Your task to perform on an android device: What's the latest technology news? Image 0: 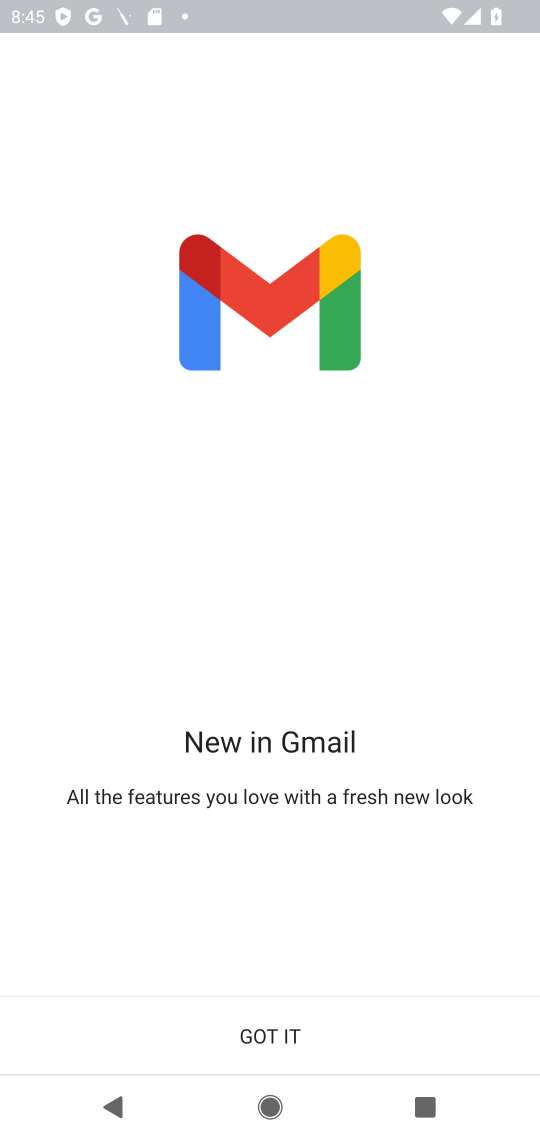
Step 0: press home button
Your task to perform on an android device: What's the latest technology news? Image 1: 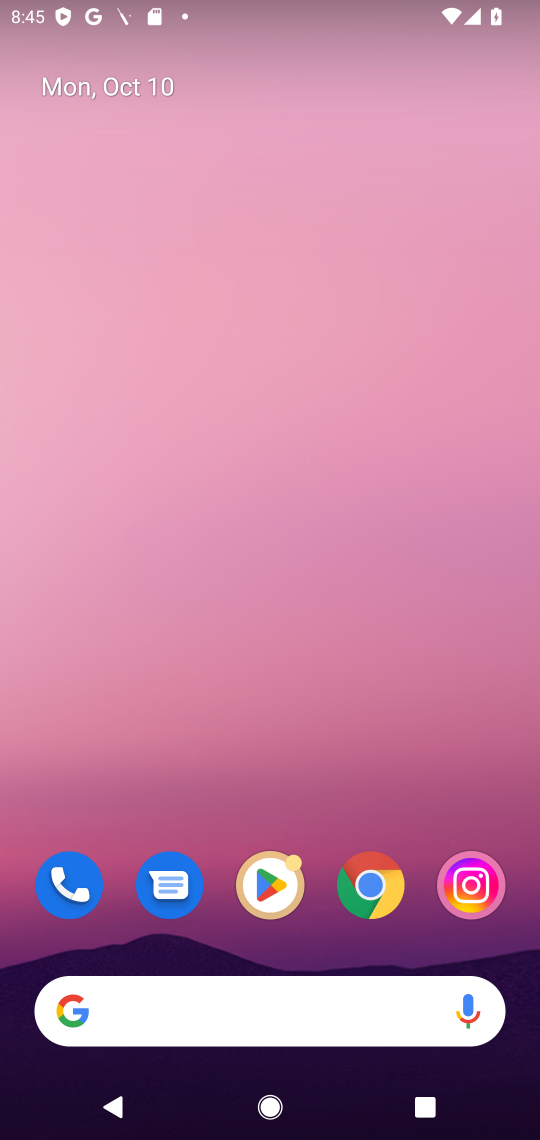
Step 1: drag from (276, 847) to (243, 34)
Your task to perform on an android device: What's the latest technology news? Image 2: 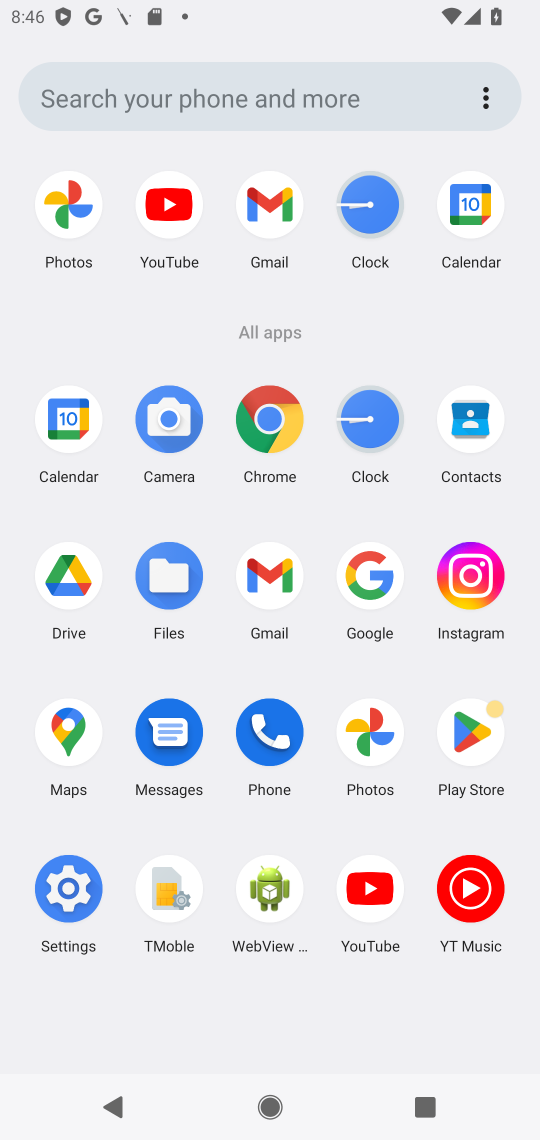
Step 2: click (356, 555)
Your task to perform on an android device: What's the latest technology news? Image 3: 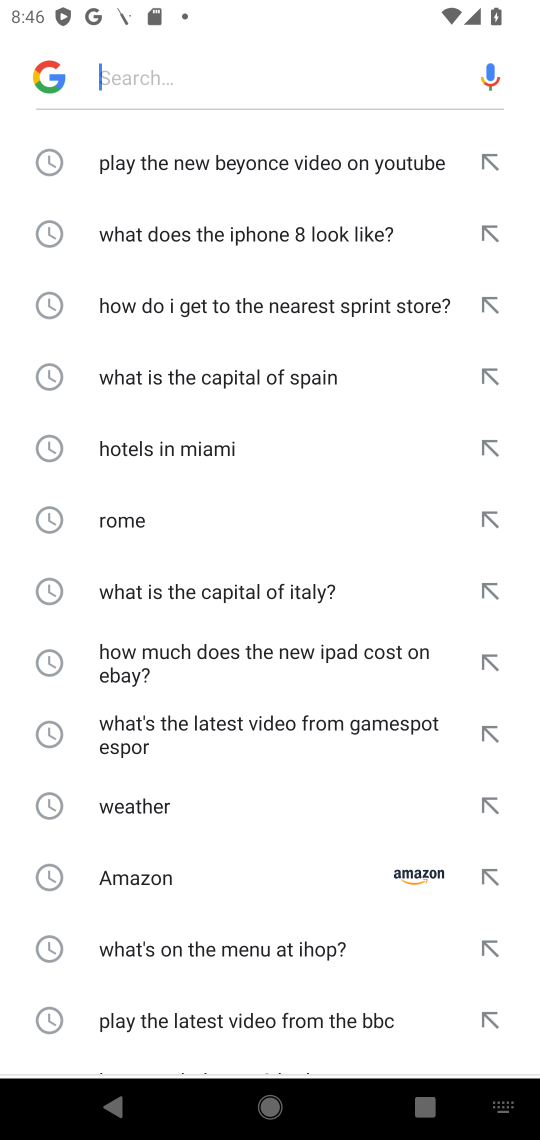
Step 3: click (377, 562)
Your task to perform on an android device: What's the latest technology news? Image 4: 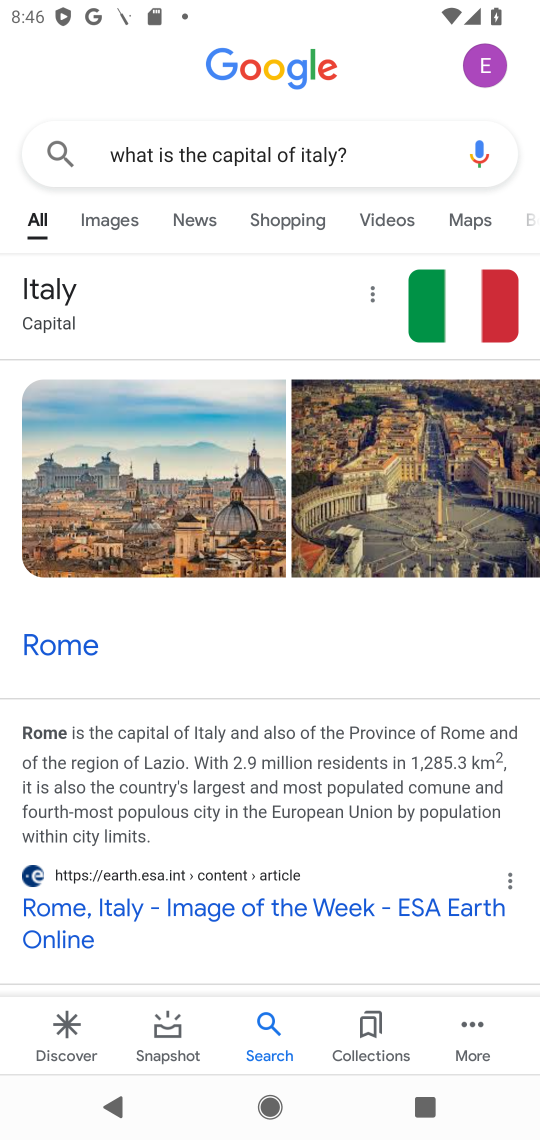
Step 4: click (299, 162)
Your task to perform on an android device: What's the latest technology news? Image 5: 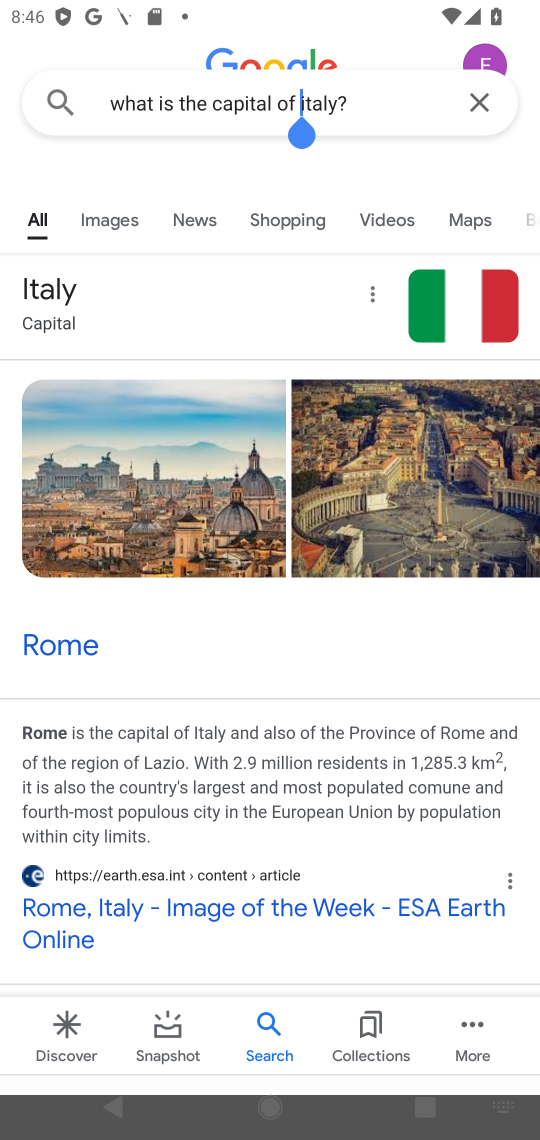
Step 5: click (299, 162)
Your task to perform on an android device: What's the latest technology news? Image 6: 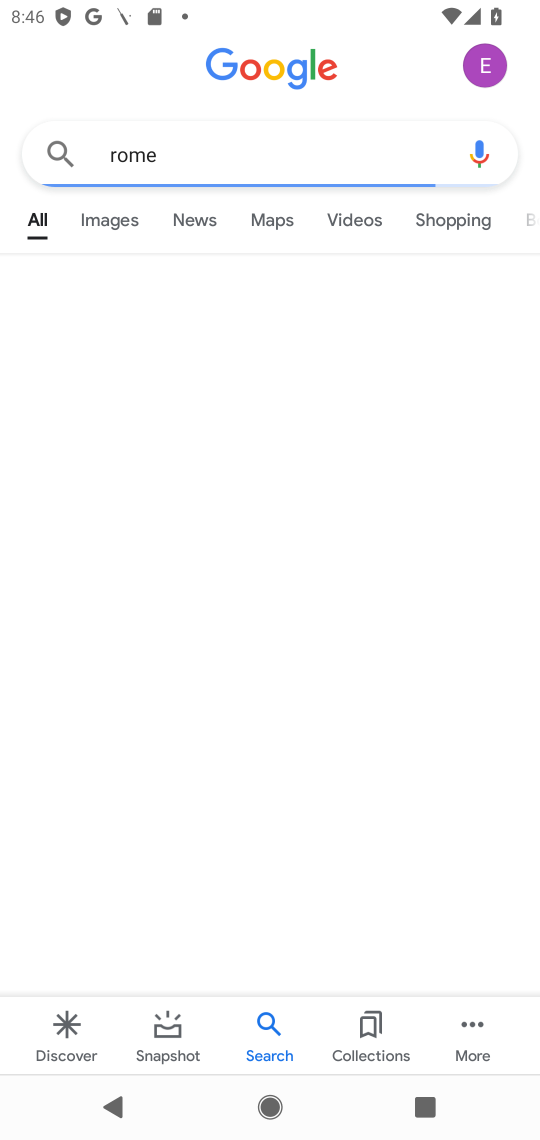
Step 6: click (265, 151)
Your task to perform on an android device: What's the latest technology news? Image 7: 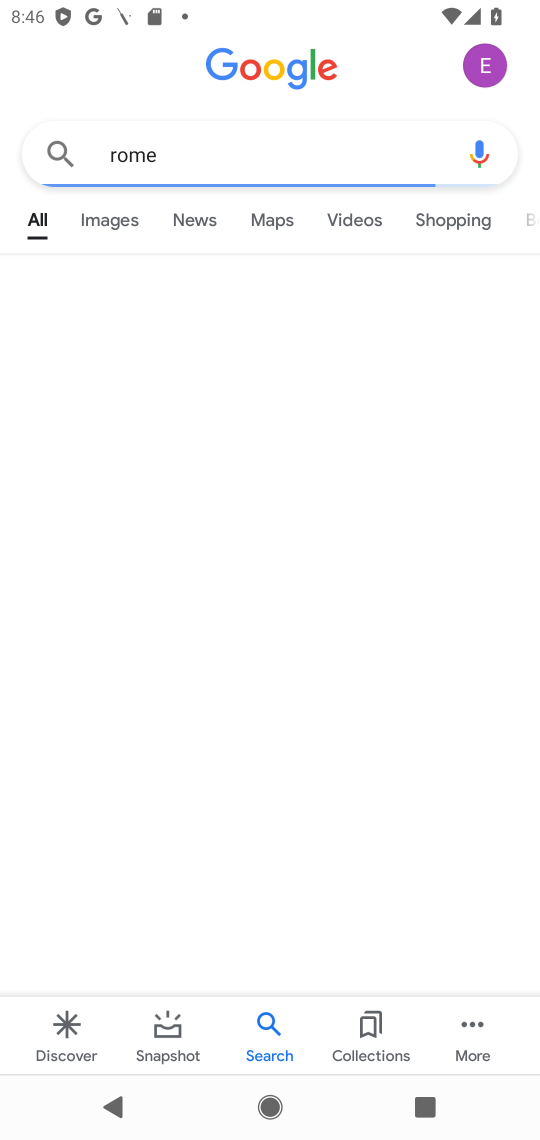
Step 7: click (265, 151)
Your task to perform on an android device: What's the latest technology news? Image 8: 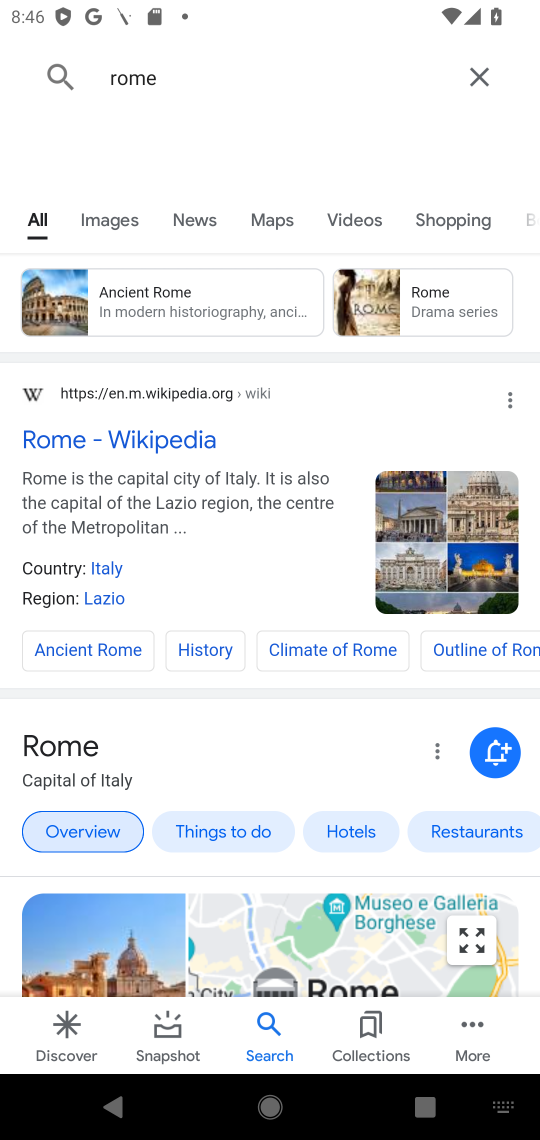
Step 8: click (168, 151)
Your task to perform on an android device: What's the latest technology news? Image 9: 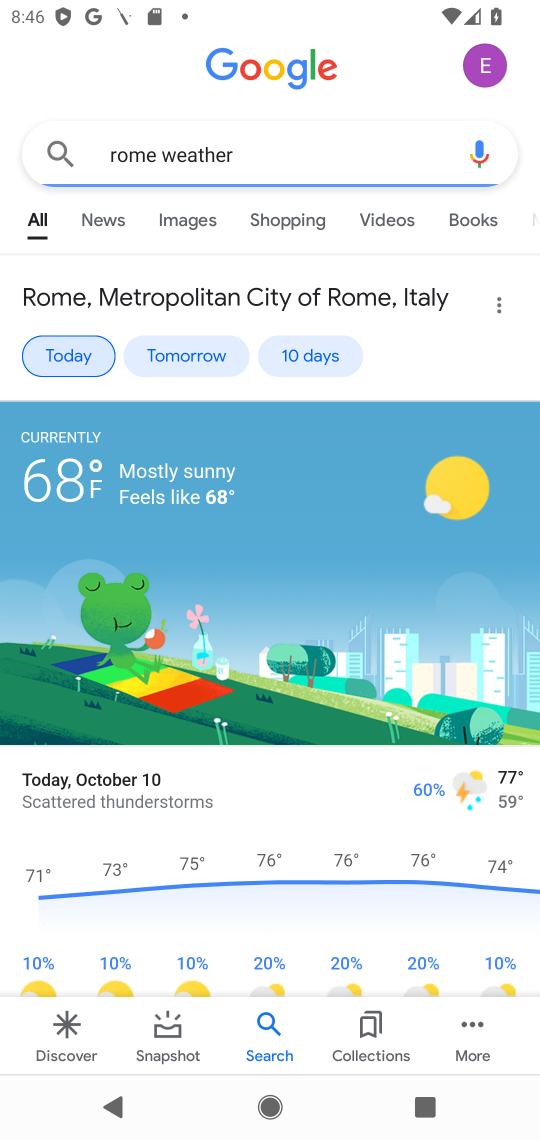
Step 9: click (314, 75)
Your task to perform on an android device: What's the latest technology news? Image 10: 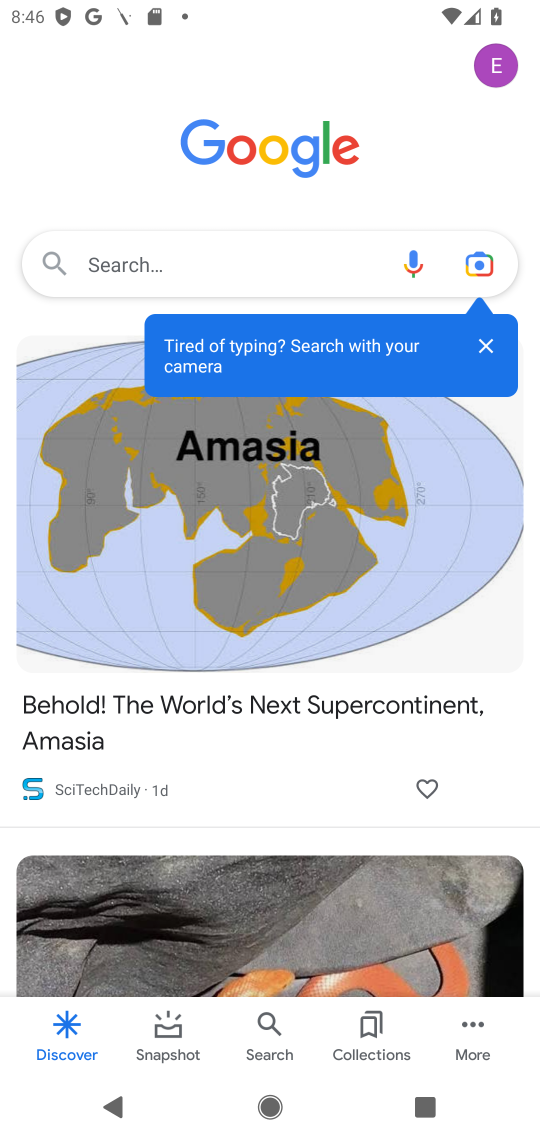
Step 10: click (327, 256)
Your task to perform on an android device: What's the latest technology news? Image 11: 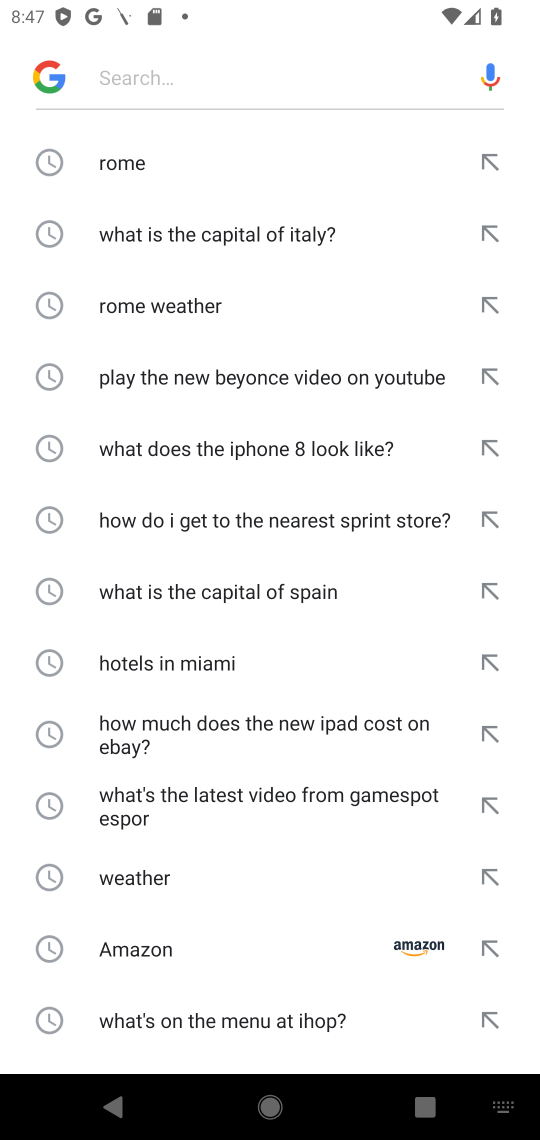
Step 11: type "What's the latest technology news?"
Your task to perform on an android device: What's the latest technology news? Image 12: 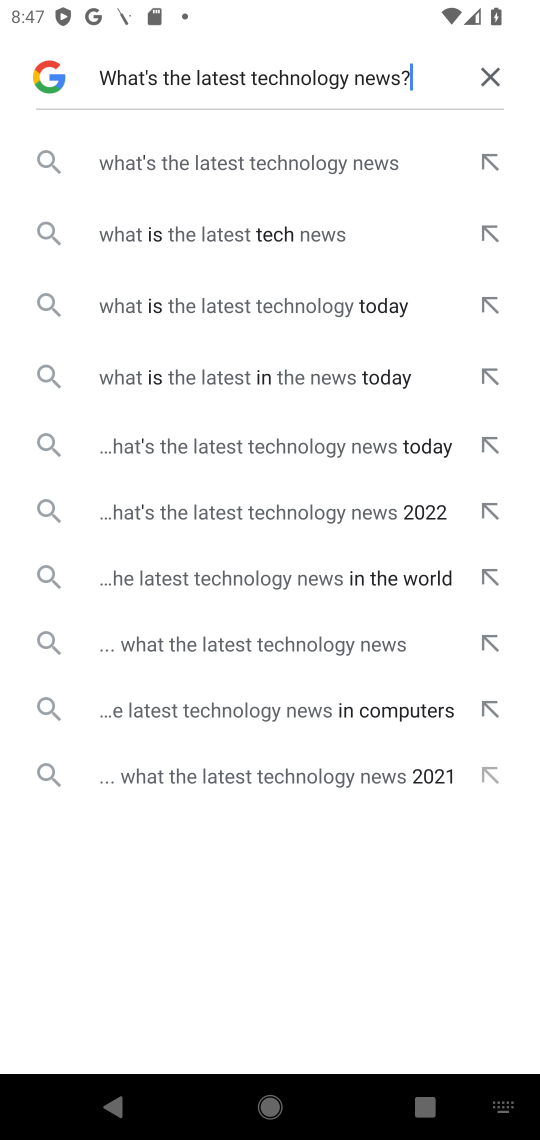
Step 12: click (302, 154)
Your task to perform on an android device: What's the latest technology news? Image 13: 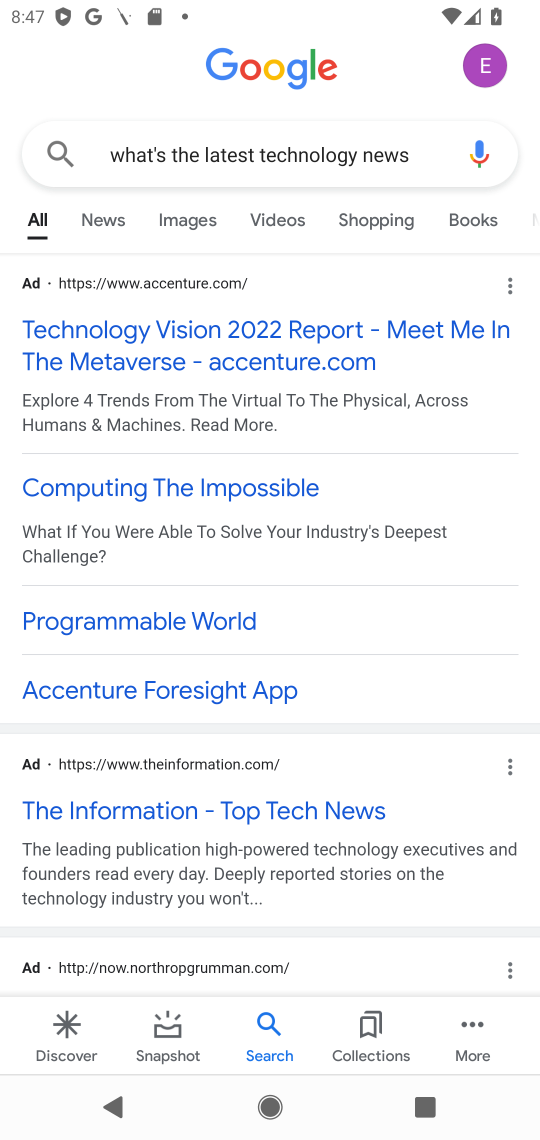
Step 13: task complete